Your task to perform on an android device: Open Google Maps and go to "Timeline" Image 0: 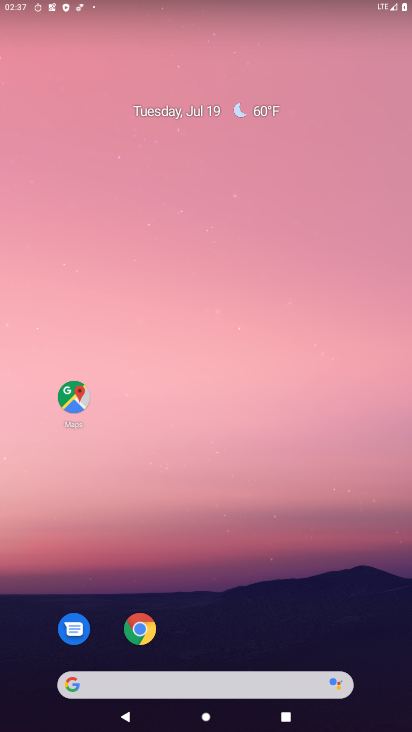
Step 0: click (84, 406)
Your task to perform on an android device: Open Google Maps and go to "Timeline" Image 1: 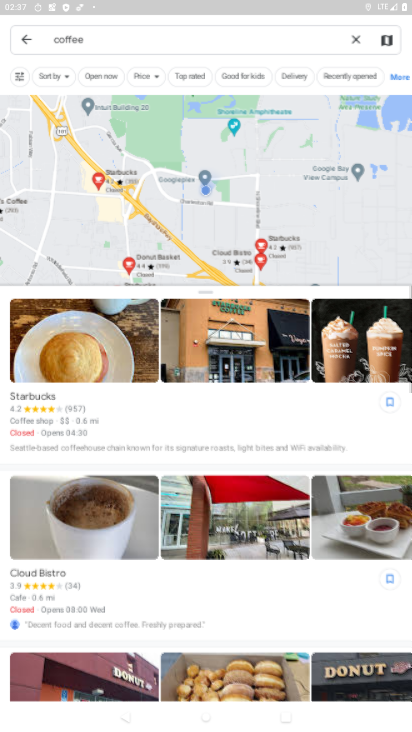
Step 1: click (29, 35)
Your task to perform on an android device: Open Google Maps and go to "Timeline" Image 2: 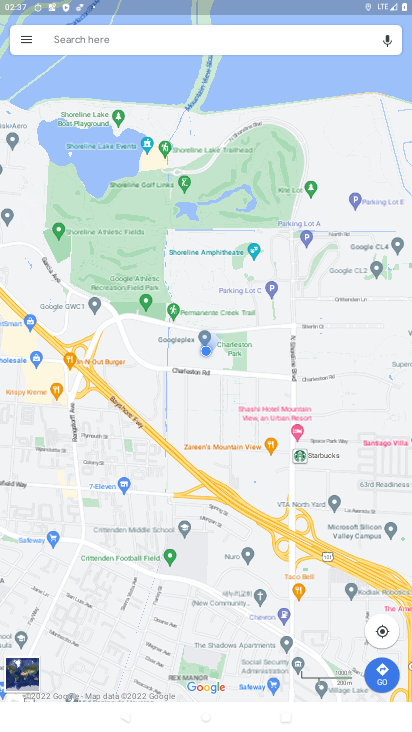
Step 2: click (26, 43)
Your task to perform on an android device: Open Google Maps and go to "Timeline" Image 3: 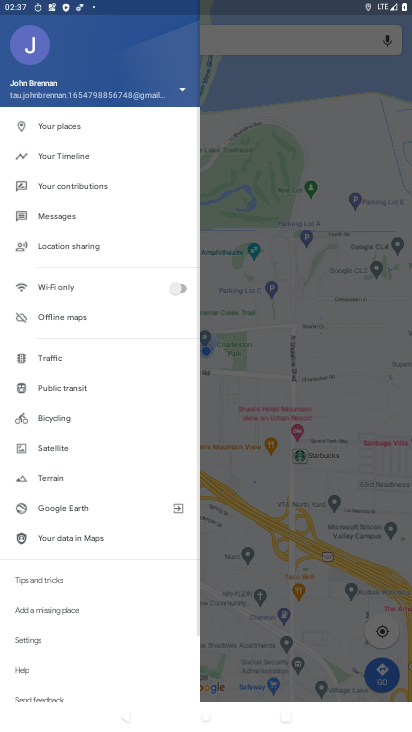
Step 3: click (86, 159)
Your task to perform on an android device: Open Google Maps and go to "Timeline" Image 4: 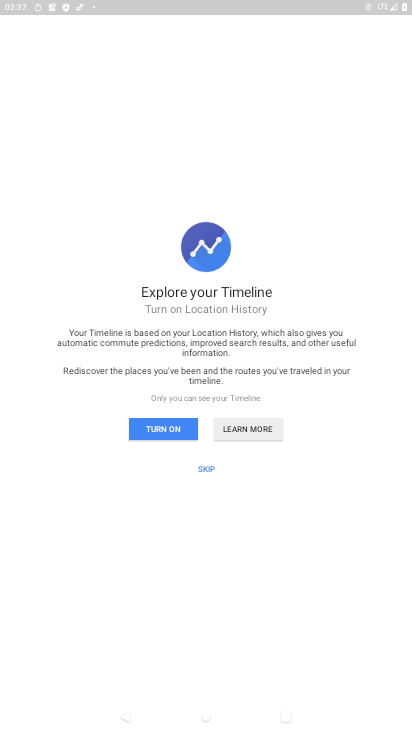
Step 4: task complete